Your task to perform on an android device: Go to notification settings Image 0: 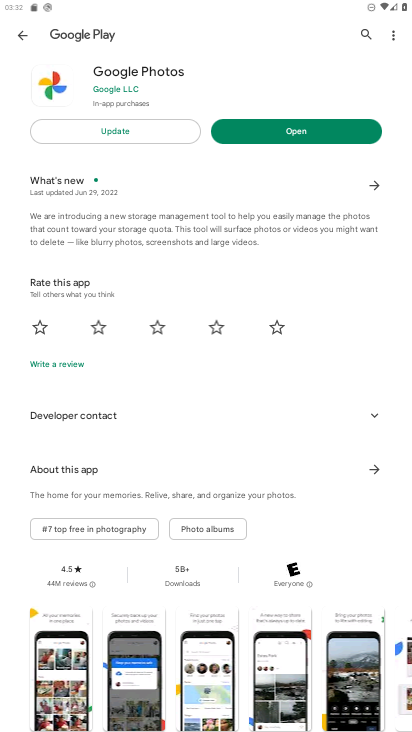
Step 0: press home button
Your task to perform on an android device: Go to notification settings Image 1: 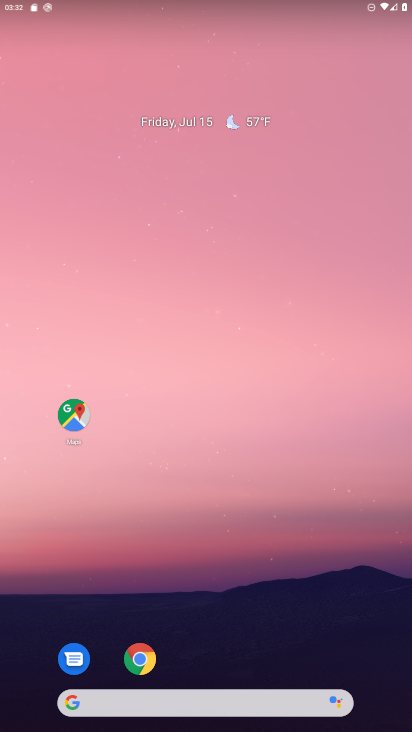
Step 1: drag from (198, 671) to (274, 105)
Your task to perform on an android device: Go to notification settings Image 2: 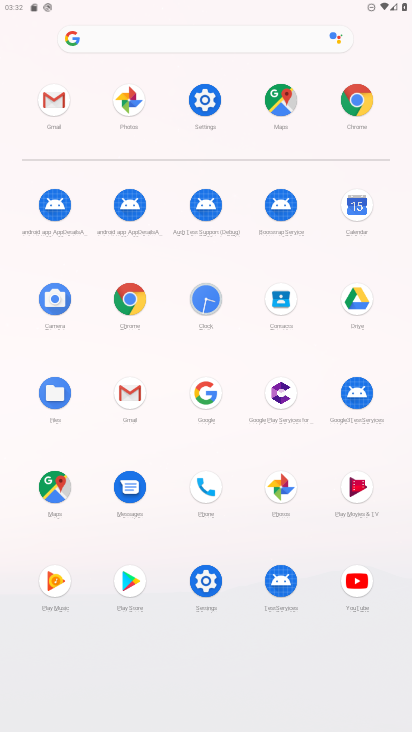
Step 2: click (206, 597)
Your task to perform on an android device: Go to notification settings Image 3: 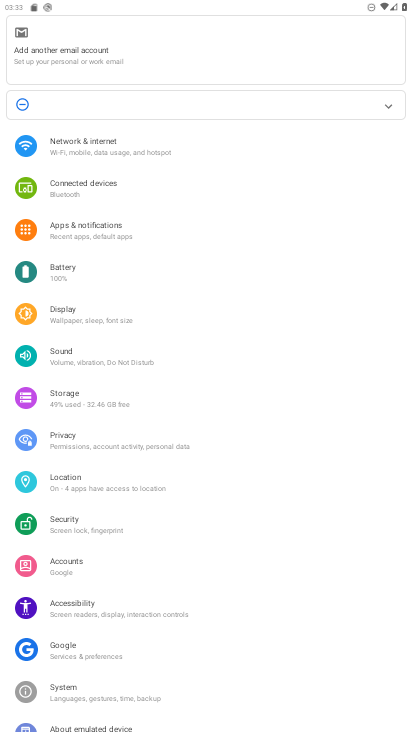
Step 3: click (127, 238)
Your task to perform on an android device: Go to notification settings Image 4: 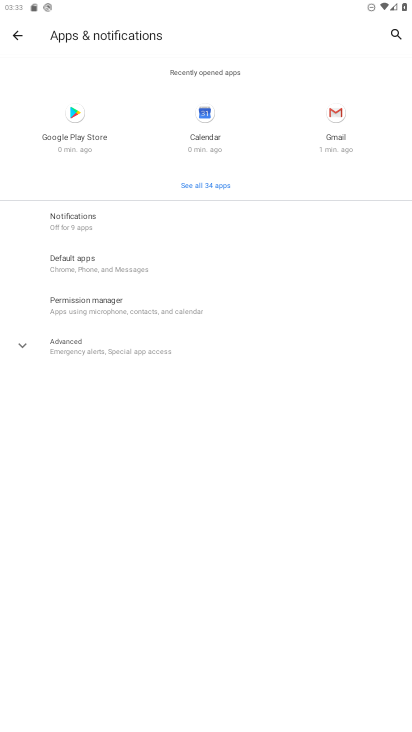
Step 4: click (99, 225)
Your task to perform on an android device: Go to notification settings Image 5: 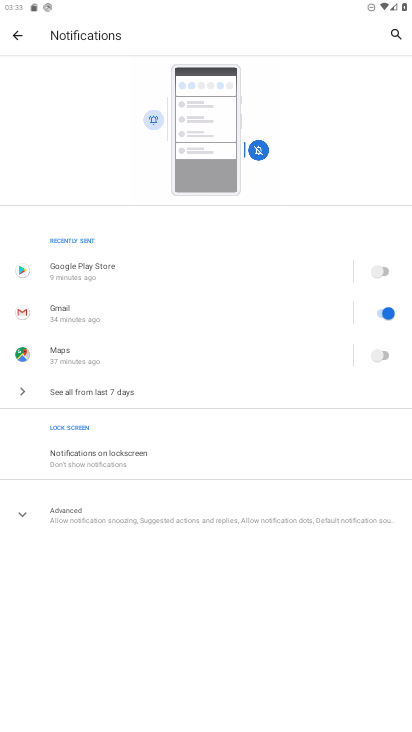
Step 5: task complete